Your task to perform on an android device: Open privacy settings Image 0: 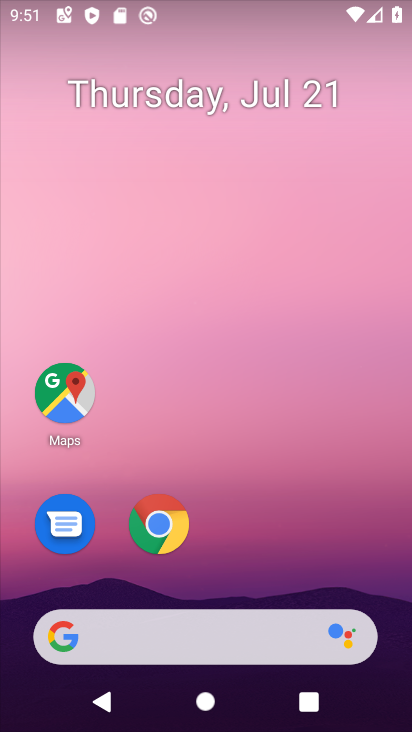
Step 0: press home button
Your task to perform on an android device: Open privacy settings Image 1: 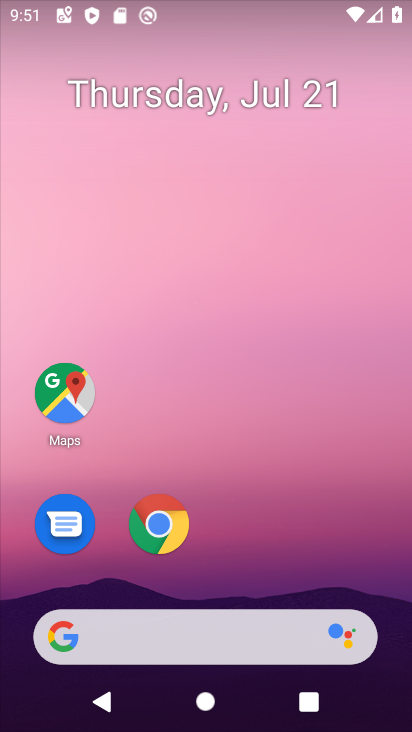
Step 1: drag from (183, 640) to (323, 161)
Your task to perform on an android device: Open privacy settings Image 2: 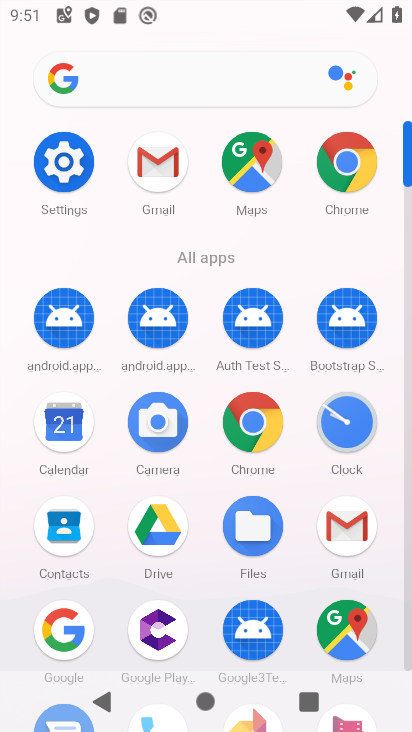
Step 2: click (66, 157)
Your task to perform on an android device: Open privacy settings Image 3: 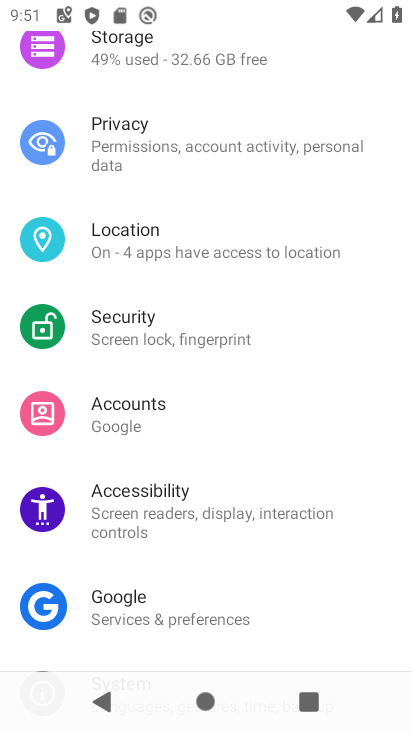
Step 3: click (137, 123)
Your task to perform on an android device: Open privacy settings Image 4: 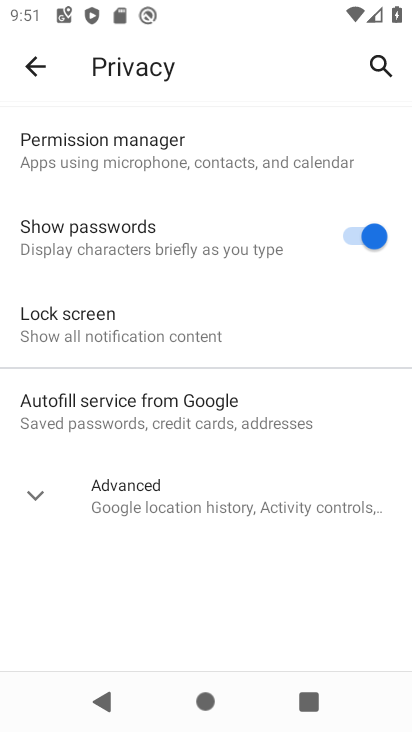
Step 4: task complete